Your task to perform on an android device: Search for seafood restaurants on Google Maps Image 0: 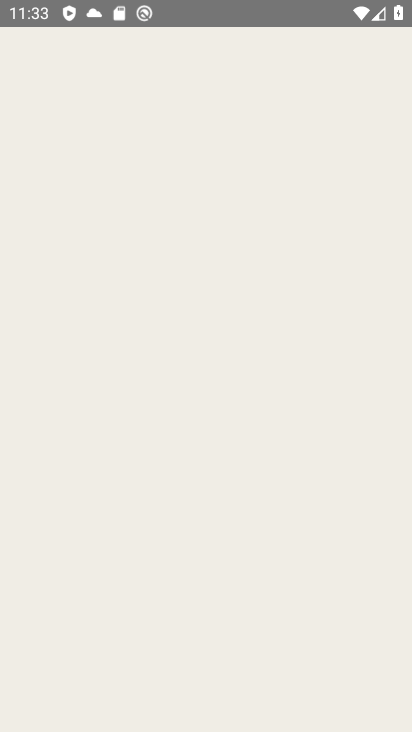
Step 0: click (45, 383)
Your task to perform on an android device: Search for seafood restaurants on Google Maps Image 1: 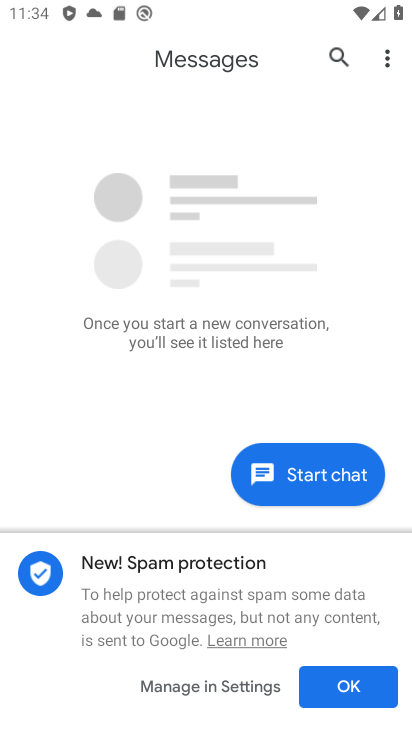
Step 1: press home button
Your task to perform on an android device: Search for seafood restaurants on Google Maps Image 2: 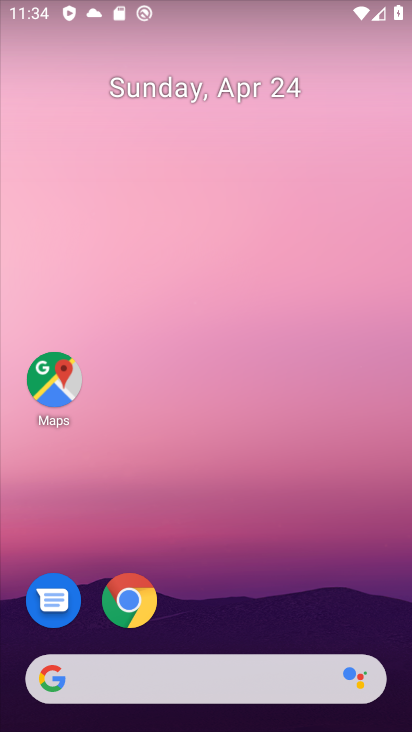
Step 2: click (46, 382)
Your task to perform on an android device: Search for seafood restaurants on Google Maps Image 3: 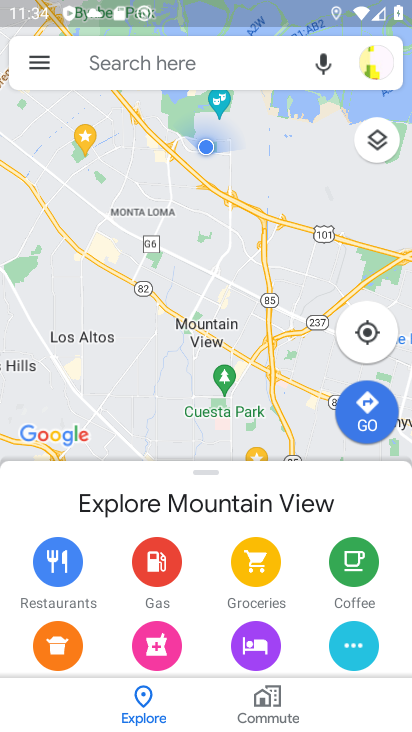
Step 3: click (169, 52)
Your task to perform on an android device: Search for seafood restaurants on Google Maps Image 4: 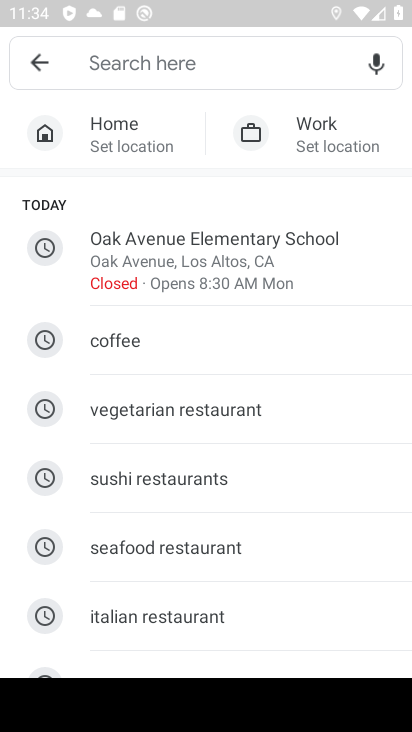
Step 4: click (151, 545)
Your task to perform on an android device: Search for seafood restaurants on Google Maps Image 5: 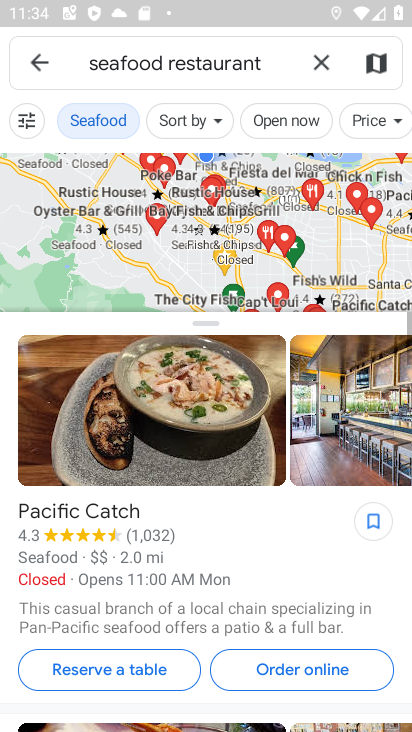
Step 5: task complete